Your task to perform on an android device: toggle notification dots Image 0: 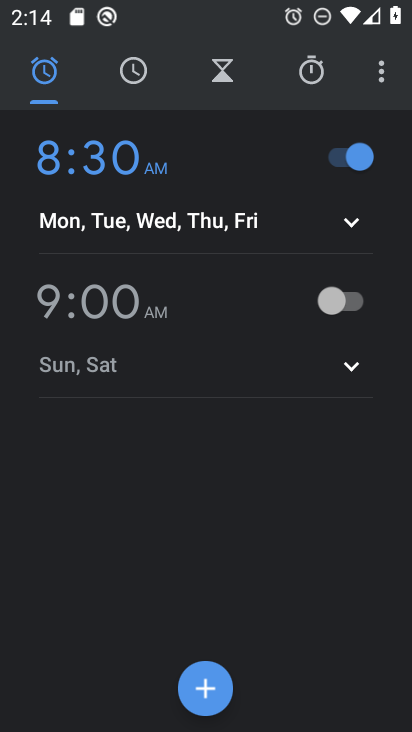
Step 0: press home button
Your task to perform on an android device: toggle notification dots Image 1: 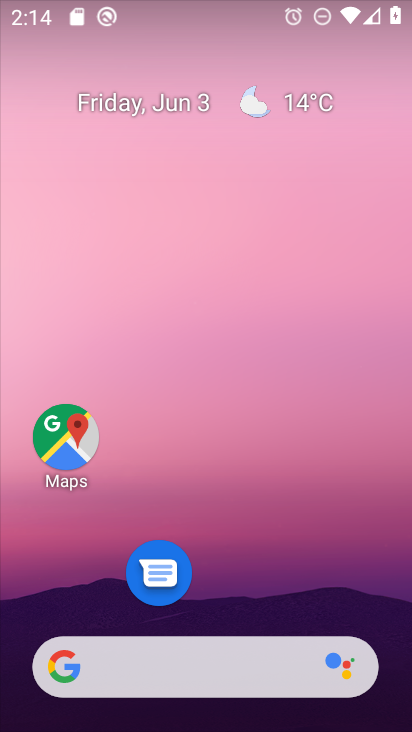
Step 1: drag from (252, 674) to (344, 24)
Your task to perform on an android device: toggle notification dots Image 2: 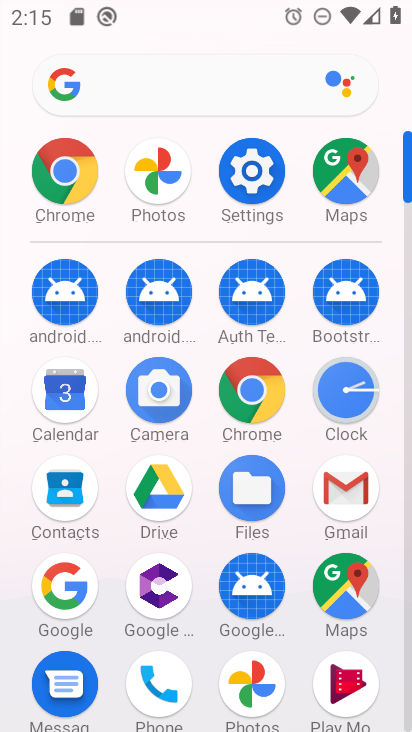
Step 2: click (250, 179)
Your task to perform on an android device: toggle notification dots Image 3: 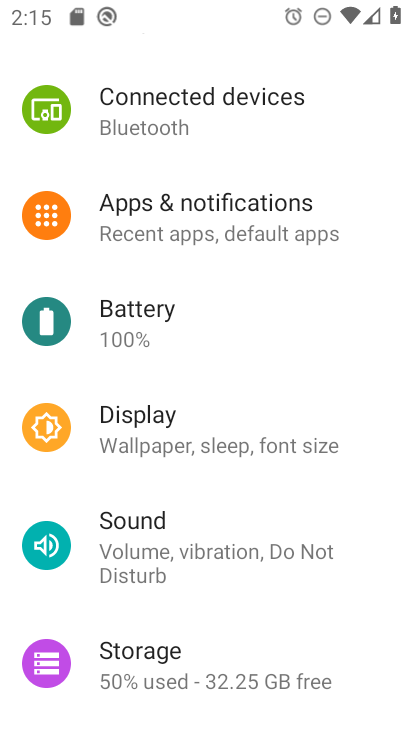
Step 3: click (258, 232)
Your task to perform on an android device: toggle notification dots Image 4: 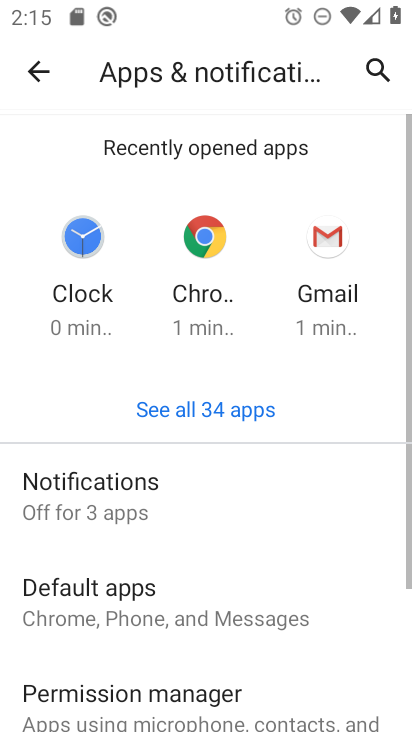
Step 4: drag from (303, 660) to (327, 261)
Your task to perform on an android device: toggle notification dots Image 5: 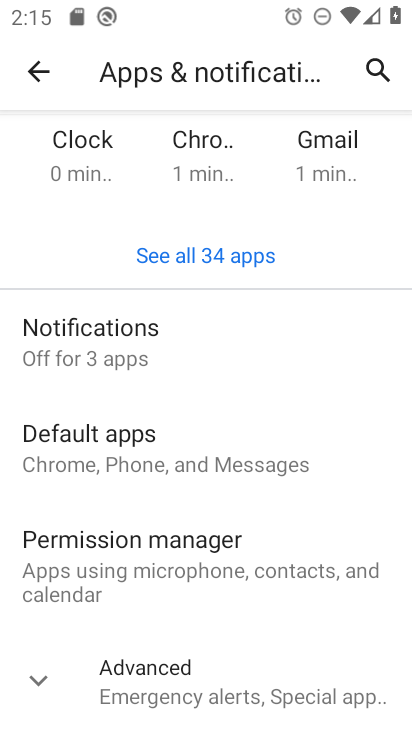
Step 5: click (179, 339)
Your task to perform on an android device: toggle notification dots Image 6: 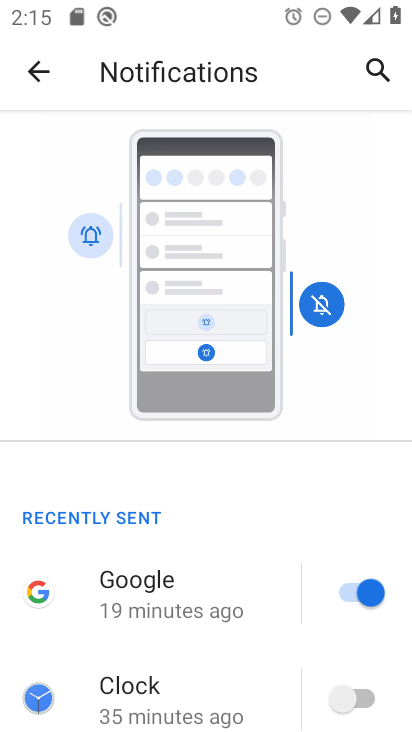
Step 6: drag from (229, 617) to (309, 44)
Your task to perform on an android device: toggle notification dots Image 7: 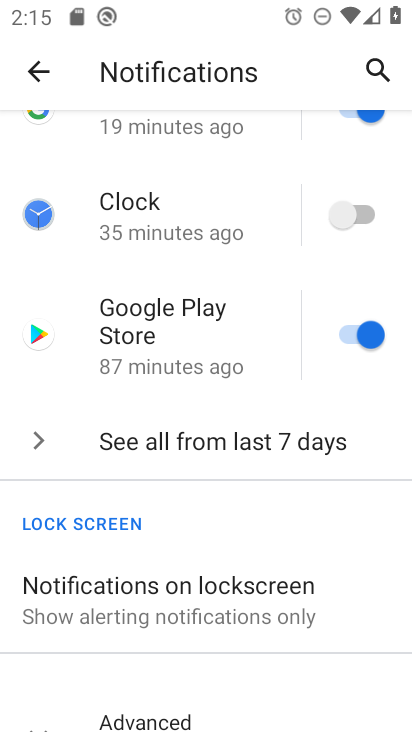
Step 7: click (259, 622)
Your task to perform on an android device: toggle notification dots Image 8: 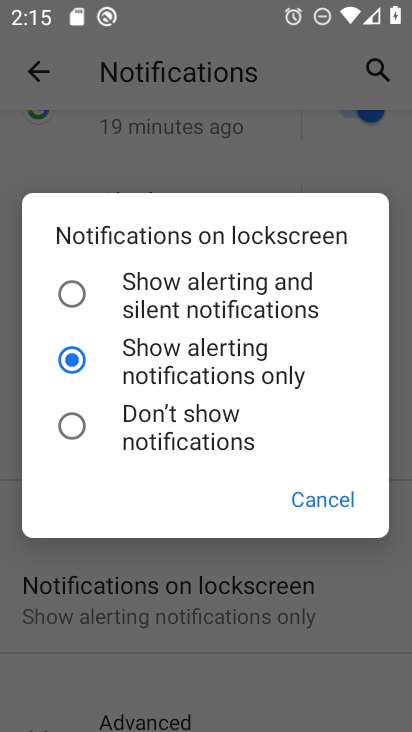
Step 8: click (330, 495)
Your task to perform on an android device: toggle notification dots Image 9: 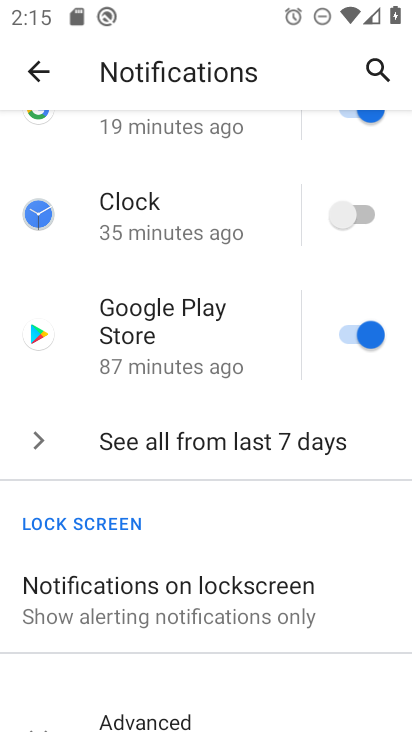
Step 9: drag from (310, 593) to (346, 175)
Your task to perform on an android device: toggle notification dots Image 10: 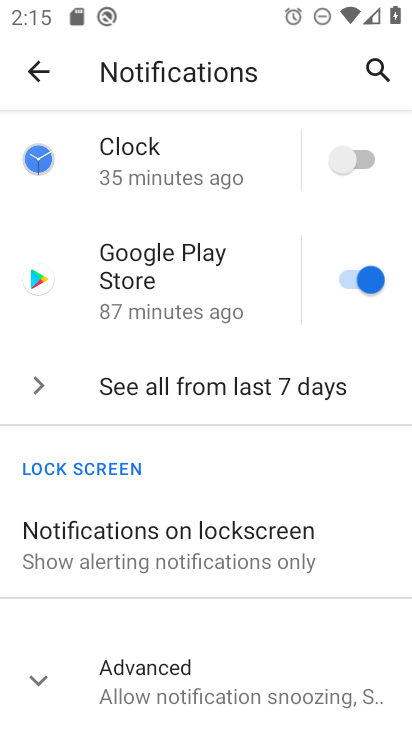
Step 10: click (248, 689)
Your task to perform on an android device: toggle notification dots Image 11: 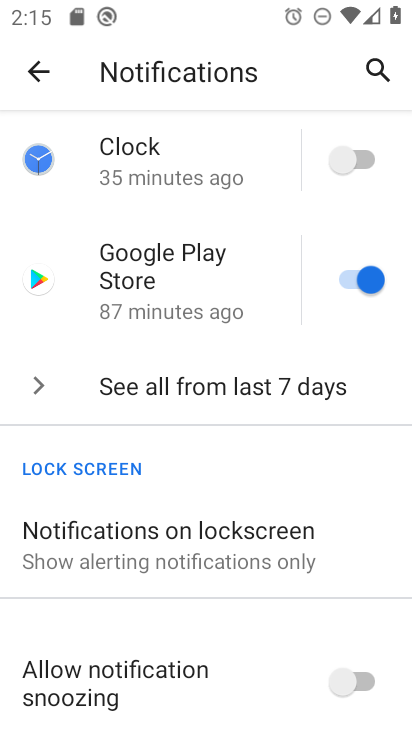
Step 11: drag from (285, 657) to (341, 200)
Your task to perform on an android device: toggle notification dots Image 12: 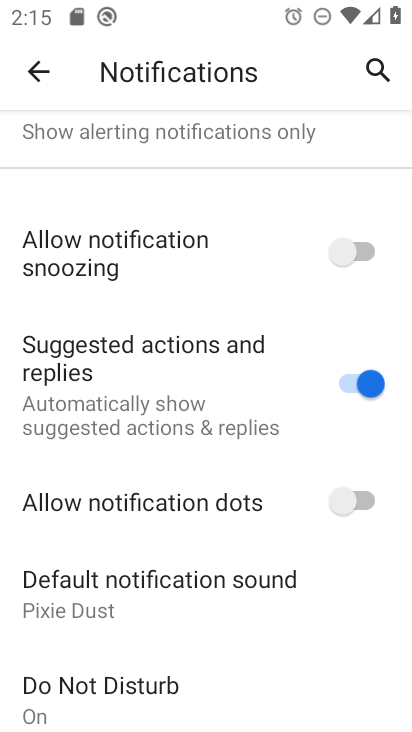
Step 12: click (353, 503)
Your task to perform on an android device: toggle notification dots Image 13: 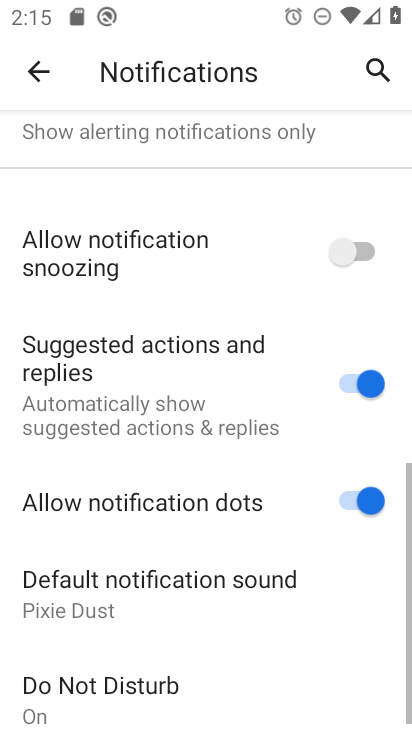
Step 13: task complete